Your task to perform on an android device: turn pop-ups off in chrome Image 0: 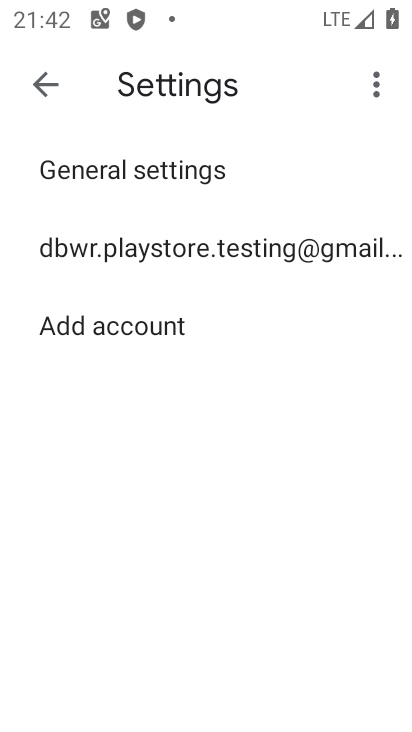
Step 0: press back button
Your task to perform on an android device: turn pop-ups off in chrome Image 1: 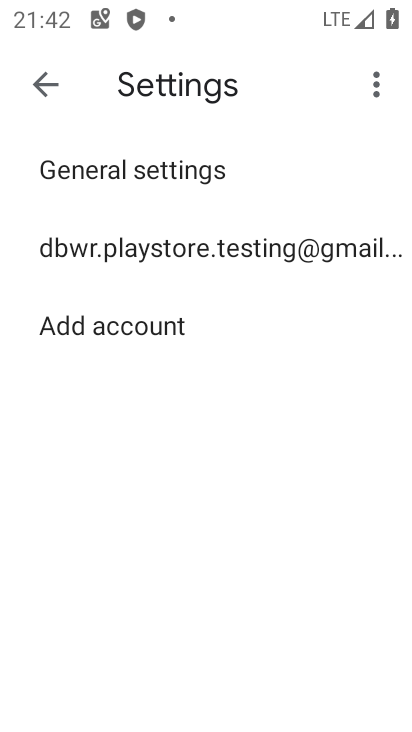
Step 1: press back button
Your task to perform on an android device: turn pop-ups off in chrome Image 2: 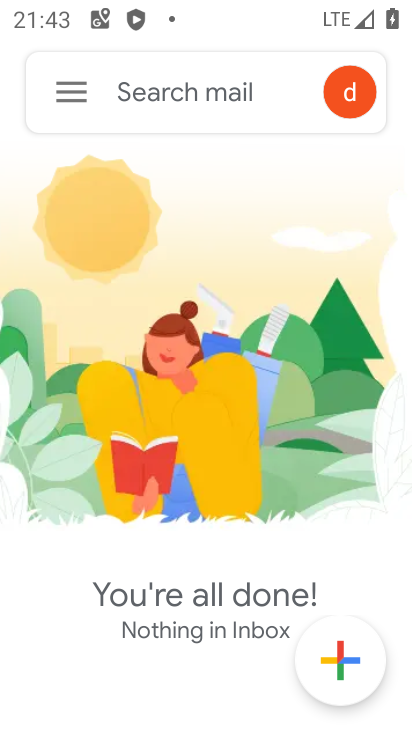
Step 2: press back button
Your task to perform on an android device: turn pop-ups off in chrome Image 3: 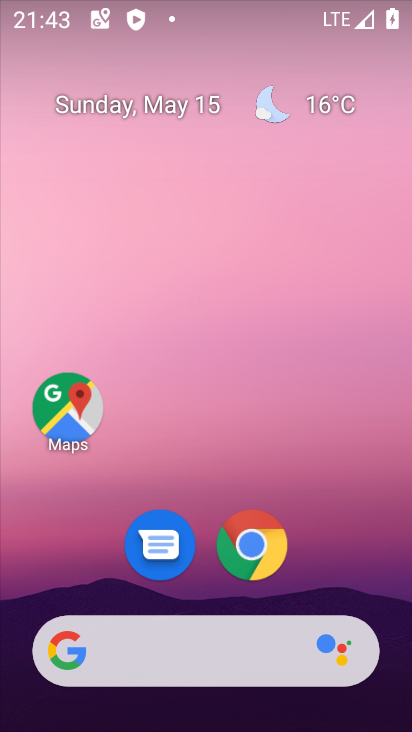
Step 3: click (252, 544)
Your task to perform on an android device: turn pop-ups off in chrome Image 4: 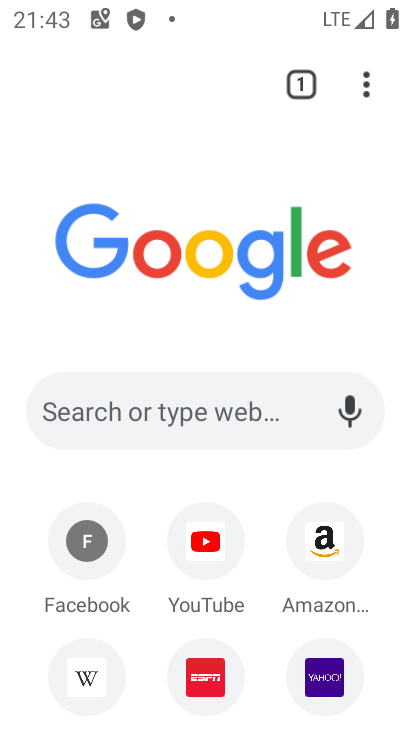
Step 4: click (367, 85)
Your task to perform on an android device: turn pop-ups off in chrome Image 5: 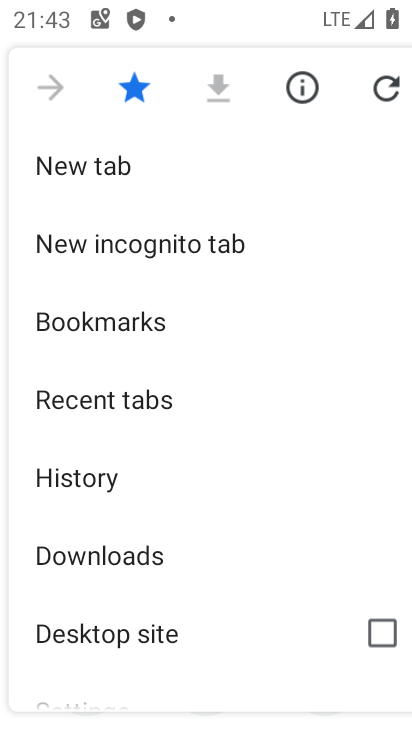
Step 5: drag from (165, 485) to (182, 369)
Your task to perform on an android device: turn pop-ups off in chrome Image 6: 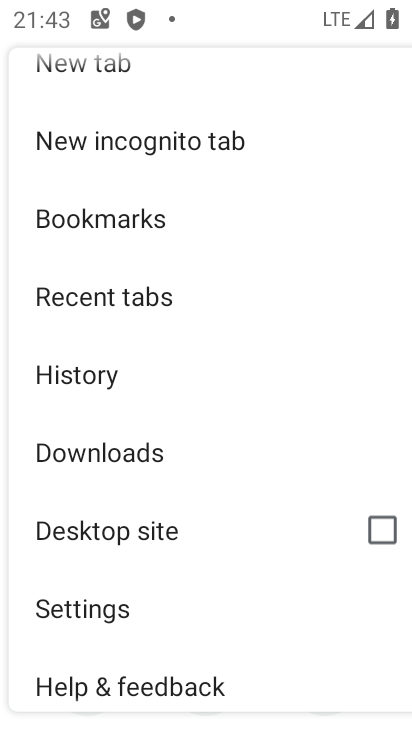
Step 6: click (86, 603)
Your task to perform on an android device: turn pop-ups off in chrome Image 7: 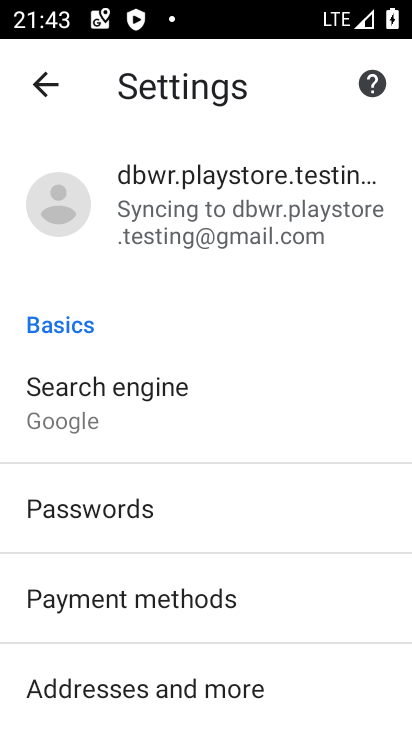
Step 7: drag from (103, 535) to (155, 427)
Your task to perform on an android device: turn pop-ups off in chrome Image 8: 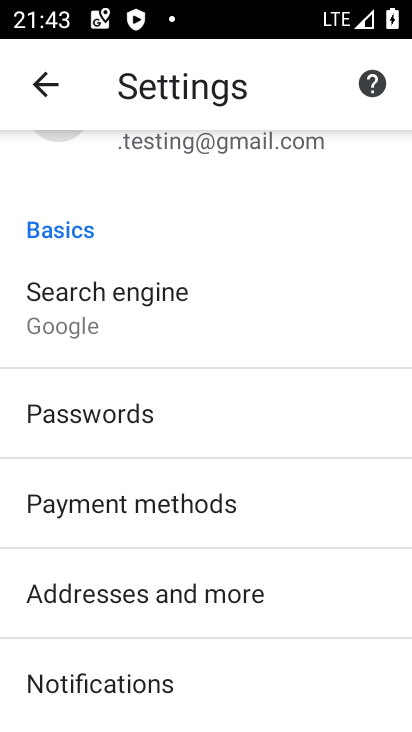
Step 8: drag from (86, 523) to (137, 410)
Your task to perform on an android device: turn pop-ups off in chrome Image 9: 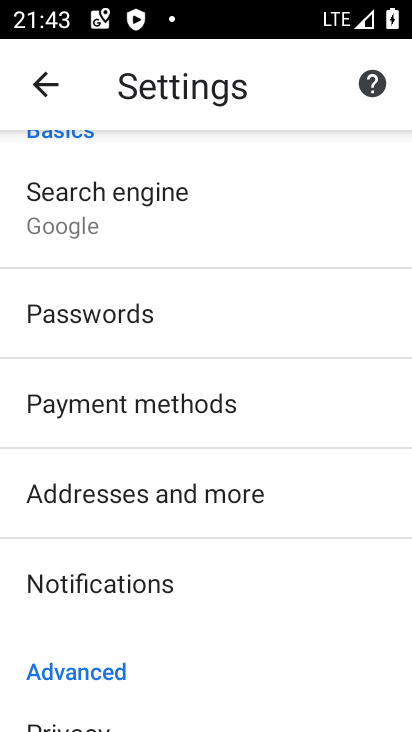
Step 9: drag from (76, 520) to (144, 423)
Your task to perform on an android device: turn pop-ups off in chrome Image 10: 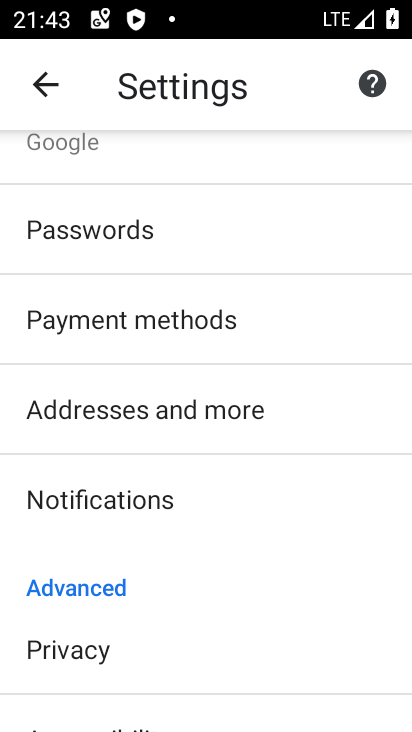
Step 10: drag from (90, 525) to (162, 420)
Your task to perform on an android device: turn pop-ups off in chrome Image 11: 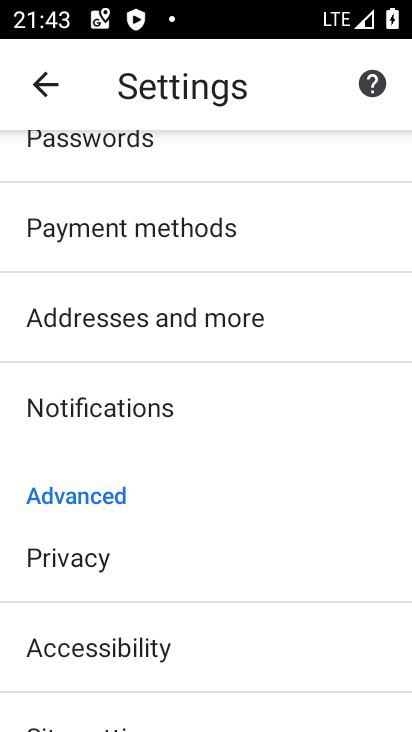
Step 11: drag from (65, 577) to (152, 457)
Your task to perform on an android device: turn pop-ups off in chrome Image 12: 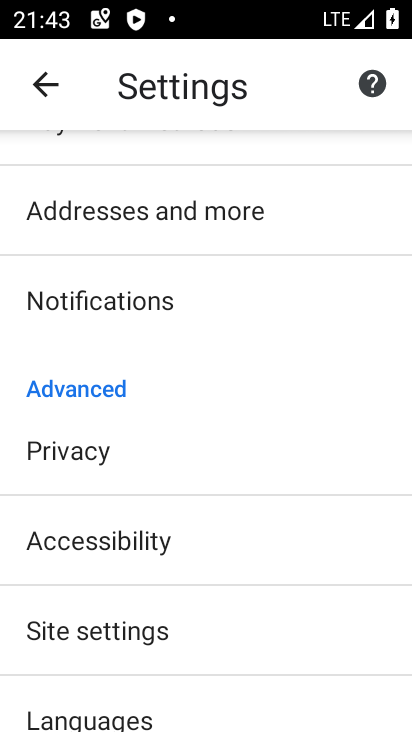
Step 12: drag from (78, 571) to (145, 462)
Your task to perform on an android device: turn pop-ups off in chrome Image 13: 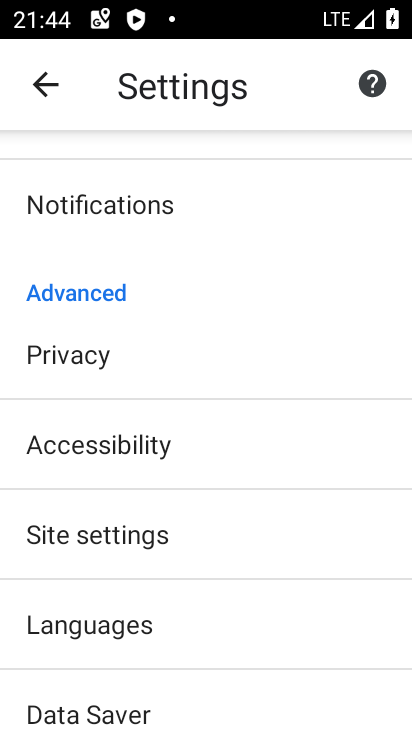
Step 13: click (135, 535)
Your task to perform on an android device: turn pop-ups off in chrome Image 14: 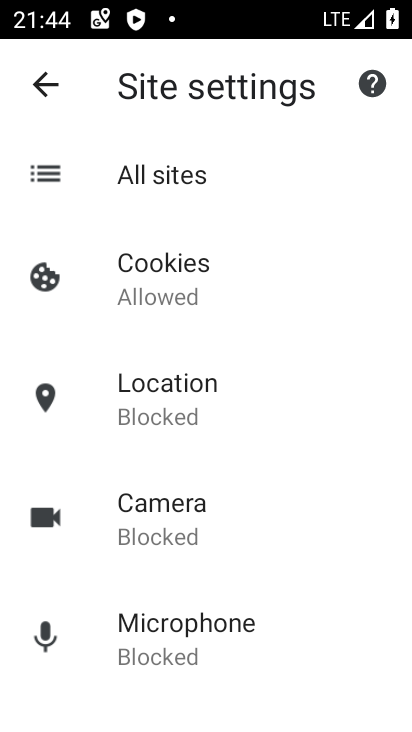
Step 14: drag from (166, 574) to (233, 444)
Your task to perform on an android device: turn pop-ups off in chrome Image 15: 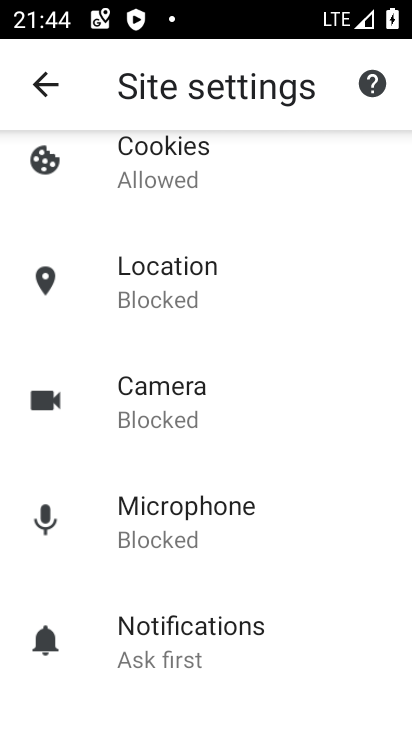
Step 15: drag from (160, 585) to (258, 439)
Your task to perform on an android device: turn pop-ups off in chrome Image 16: 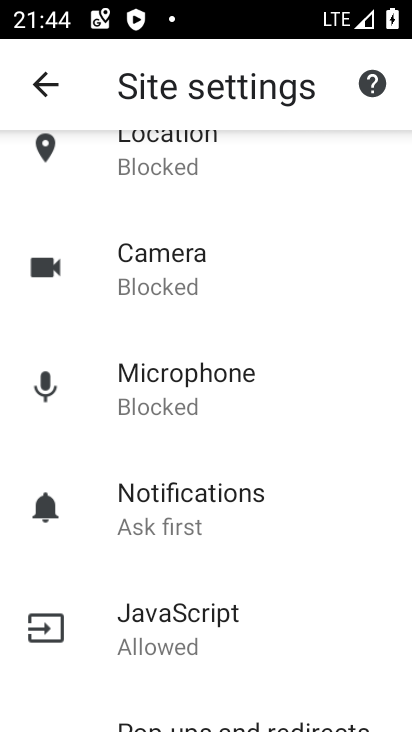
Step 16: drag from (158, 585) to (235, 428)
Your task to perform on an android device: turn pop-ups off in chrome Image 17: 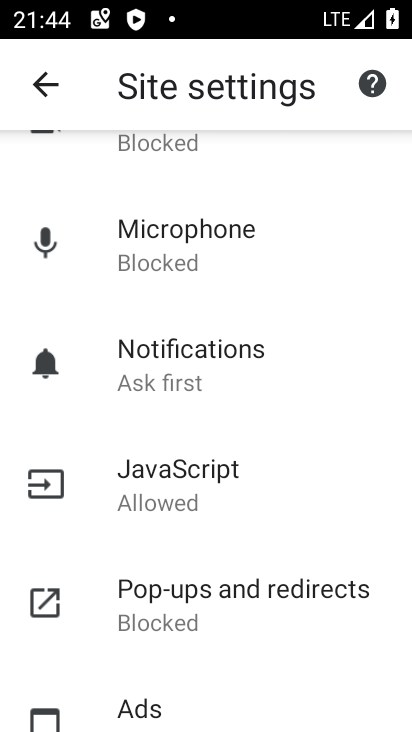
Step 17: click (175, 598)
Your task to perform on an android device: turn pop-ups off in chrome Image 18: 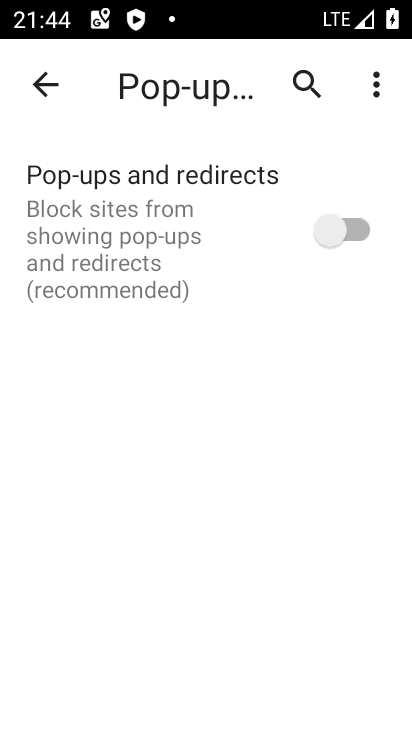
Step 18: task complete